Your task to perform on an android device: When is my next meeting? Image 0: 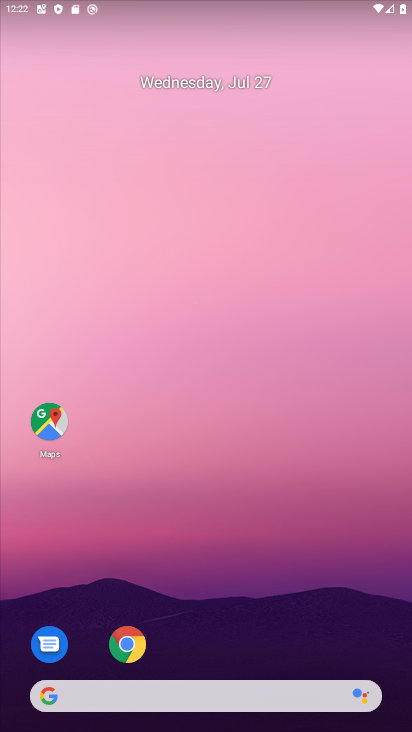
Step 0: drag from (299, 679) to (306, 13)
Your task to perform on an android device: When is my next meeting? Image 1: 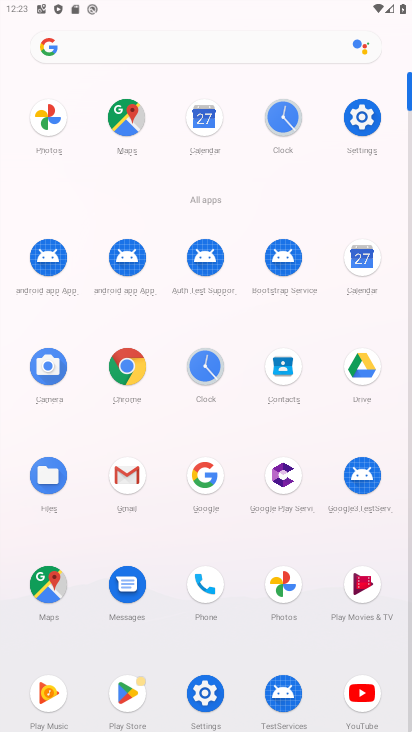
Step 1: click (348, 242)
Your task to perform on an android device: When is my next meeting? Image 2: 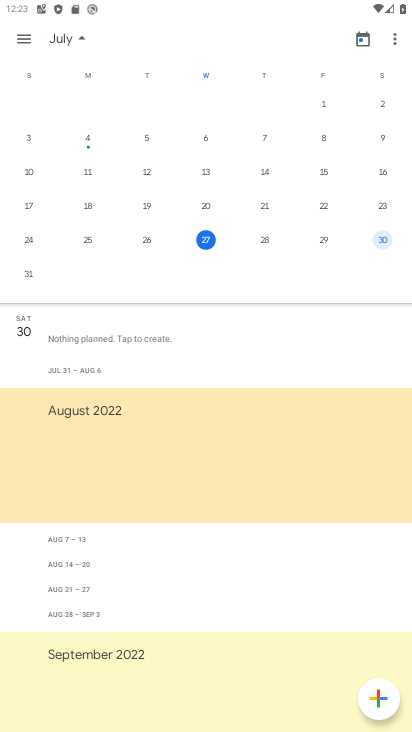
Step 2: click (213, 235)
Your task to perform on an android device: When is my next meeting? Image 3: 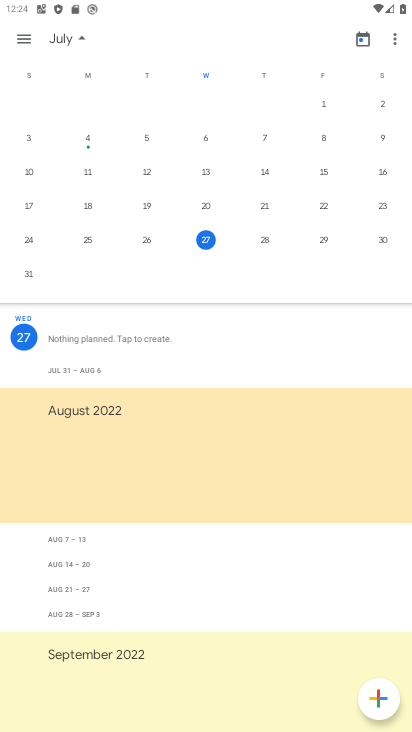
Step 3: task complete